Your task to perform on an android device: turn off smart reply in the gmail app Image 0: 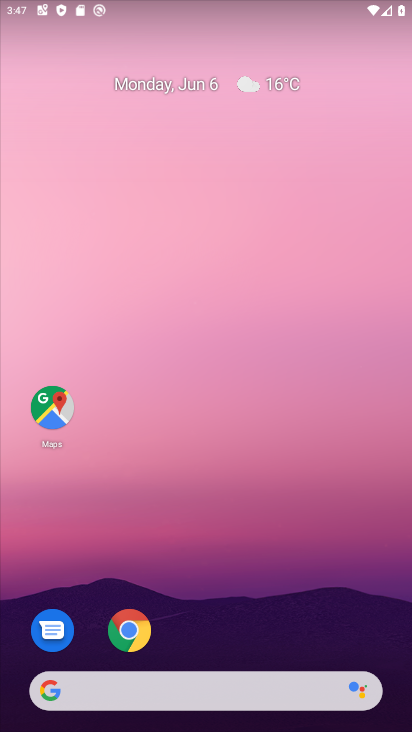
Step 0: drag from (210, 617) to (266, 172)
Your task to perform on an android device: turn off smart reply in the gmail app Image 1: 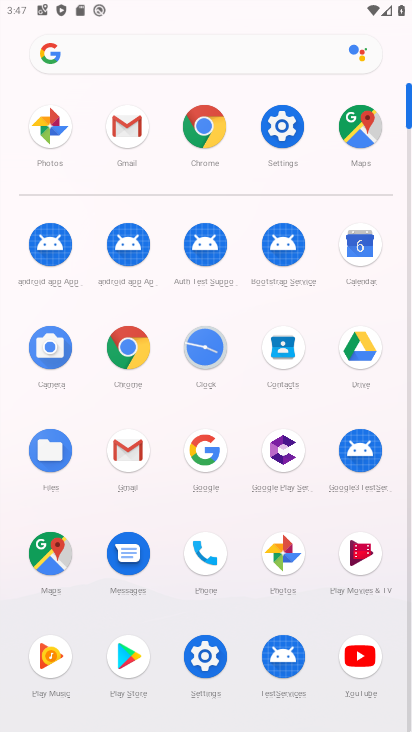
Step 1: click (129, 122)
Your task to perform on an android device: turn off smart reply in the gmail app Image 2: 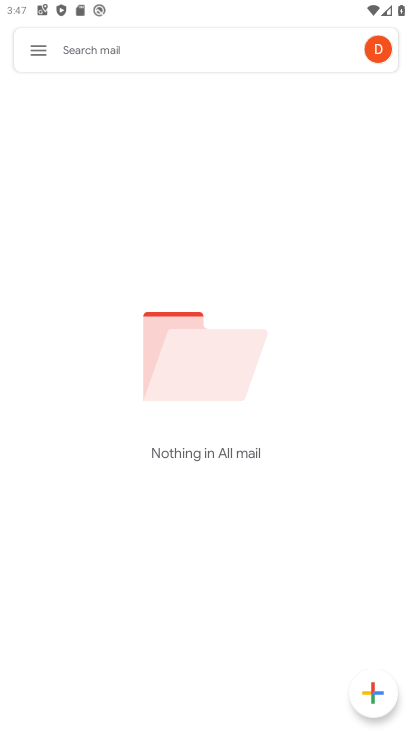
Step 2: click (41, 50)
Your task to perform on an android device: turn off smart reply in the gmail app Image 3: 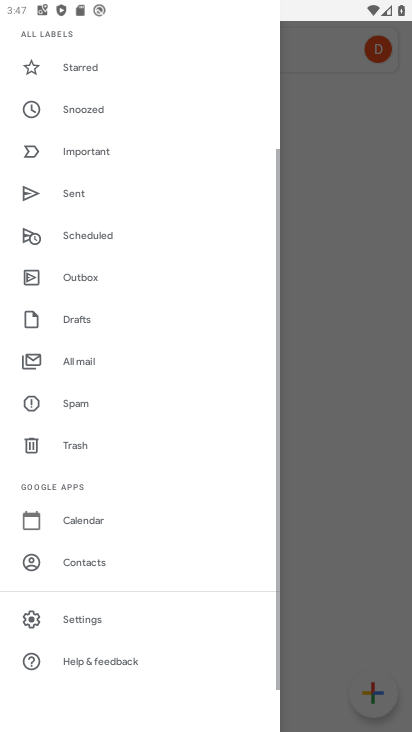
Step 3: click (102, 618)
Your task to perform on an android device: turn off smart reply in the gmail app Image 4: 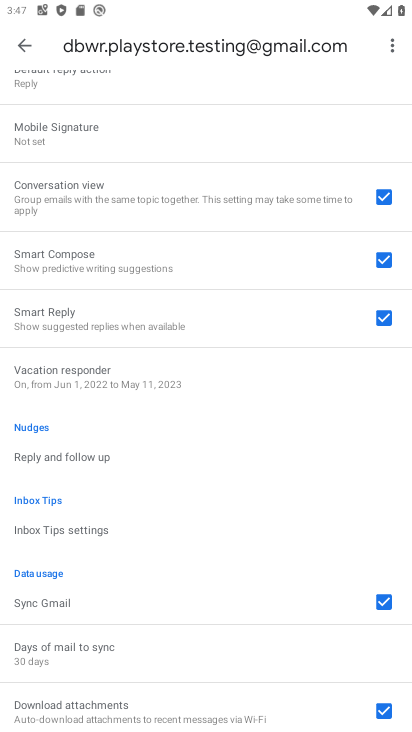
Step 4: click (374, 321)
Your task to perform on an android device: turn off smart reply in the gmail app Image 5: 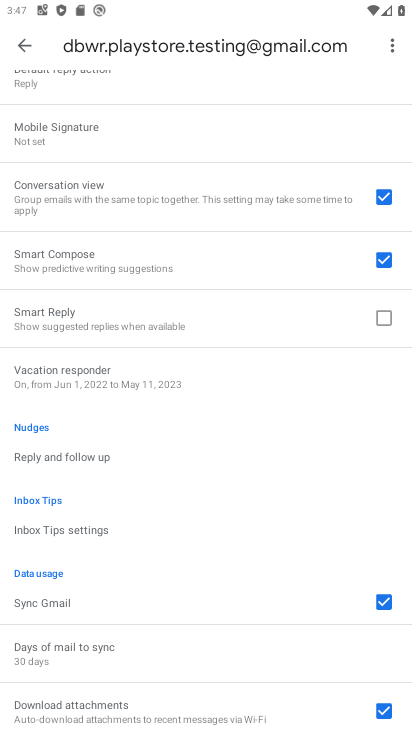
Step 5: task complete